Your task to perform on an android device: Go to battery settings Image 0: 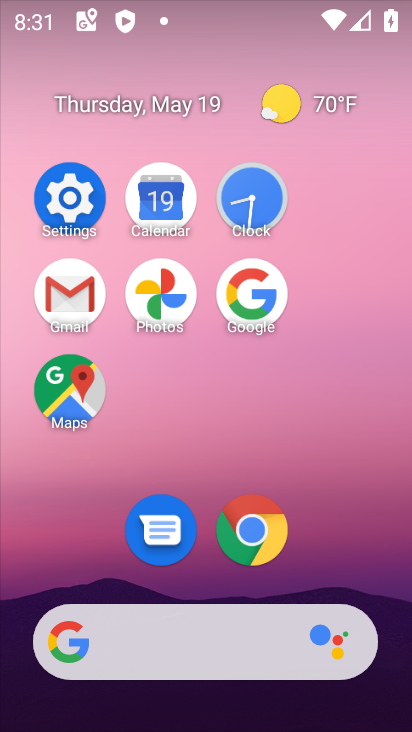
Step 0: click (62, 211)
Your task to perform on an android device: Go to battery settings Image 1: 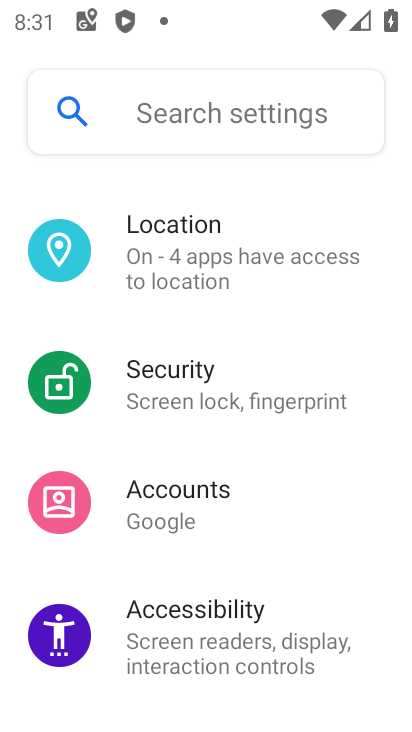
Step 1: drag from (230, 519) to (280, 98)
Your task to perform on an android device: Go to battery settings Image 2: 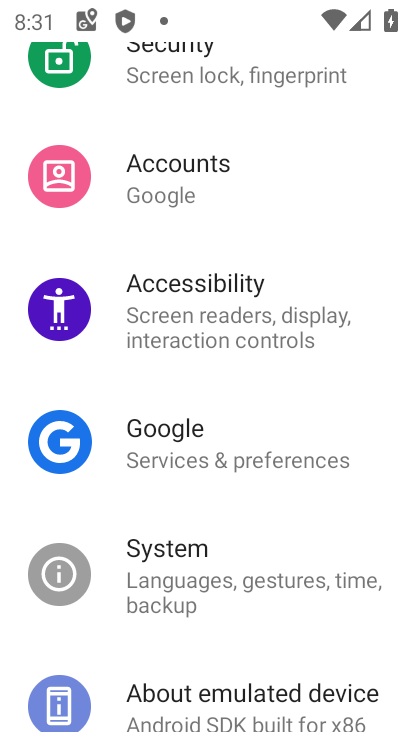
Step 2: drag from (343, 200) to (305, 628)
Your task to perform on an android device: Go to battery settings Image 3: 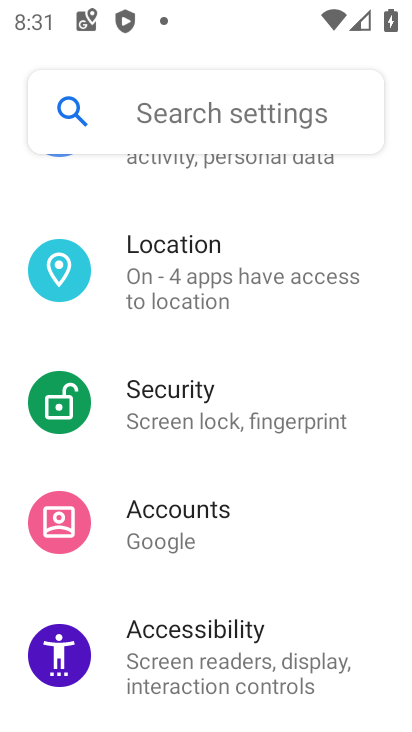
Step 3: drag from (326, 246) to (263, 612)
Your task to perform on an android device: Go to battery settings Image 4: 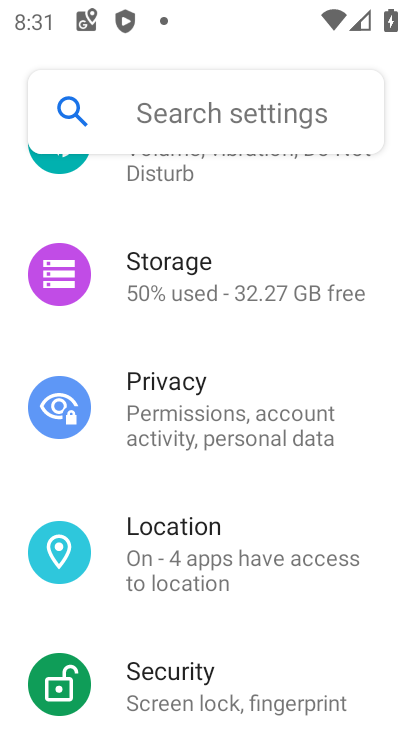
Step 4: drag from (323, 229) to (309, 600)
Your task to perform on an android device: Go to battery settings Image 5: 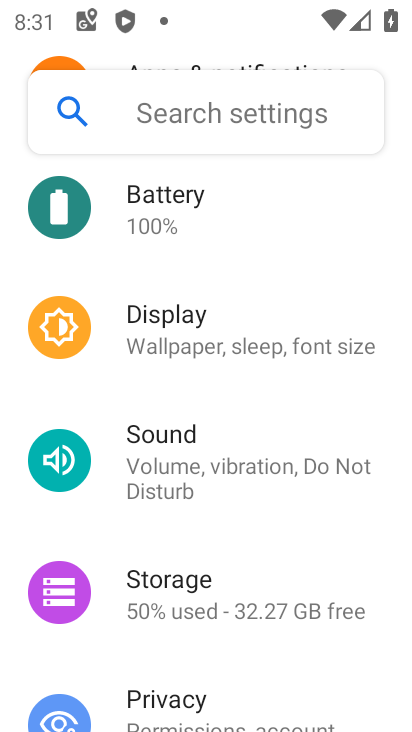
Step 5: click (220, 199)
Your task to perform on an android device: Go to battery settings Image 6: 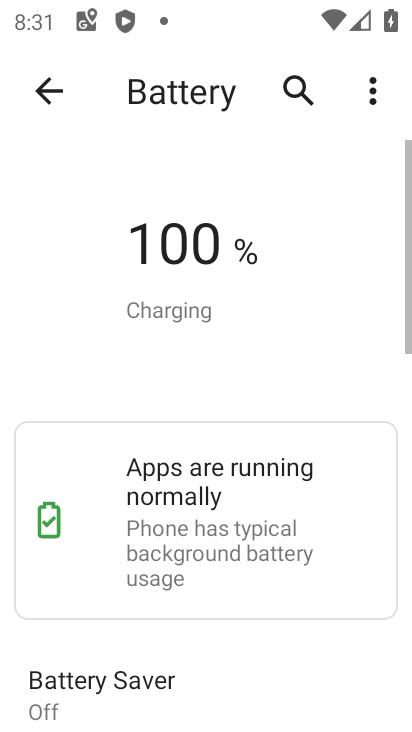
Step 6: task complete